Your task to perform on an android device: turn on improve location accuracy Image 0: 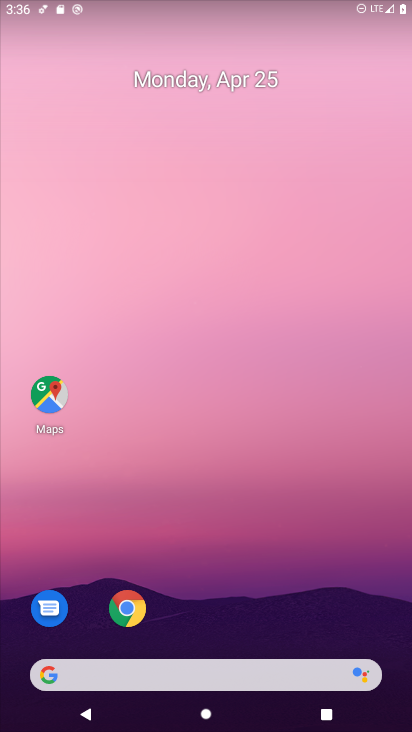
Step 0: drag from (256, 678) to (191, 257)
Your task to perform on an android device: turn on improve location accuracy Image 1: 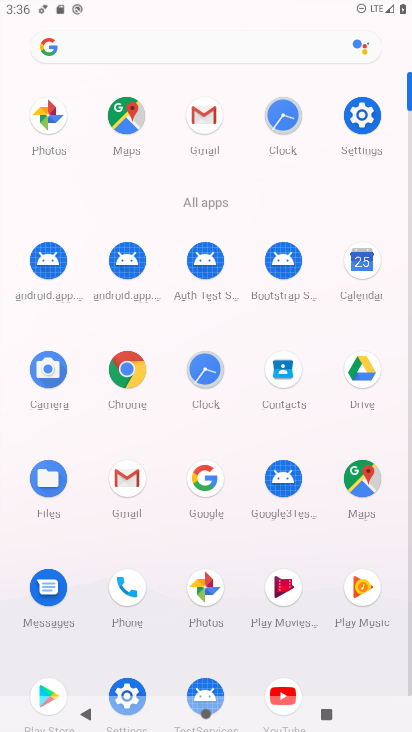
Step 1: click (366, 128)
Your task to perform on an android device: turn on improve location accuracy Image 2: 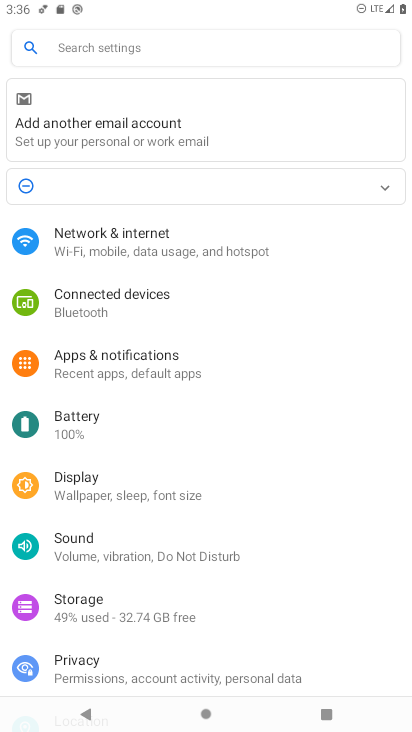
Step 2: click (167, 51)
Your task to perform on an android device: turn on improve location accuracy Image 3: 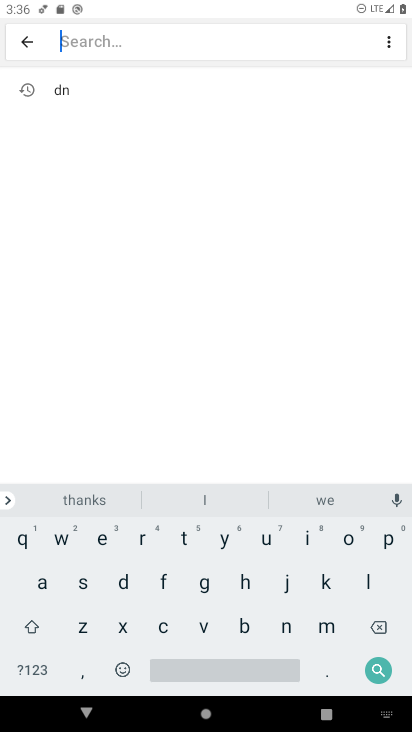
Step 3: click (370, 585)
Your task to perform on an android device: turn on improve location accuracy Image 4: 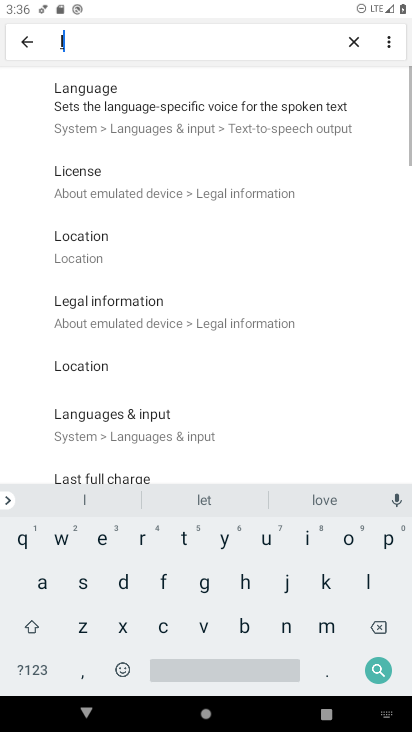
Step 4: click (351, 541)
Your task to perform on an android device: turn on improve location accuracy Image 5: 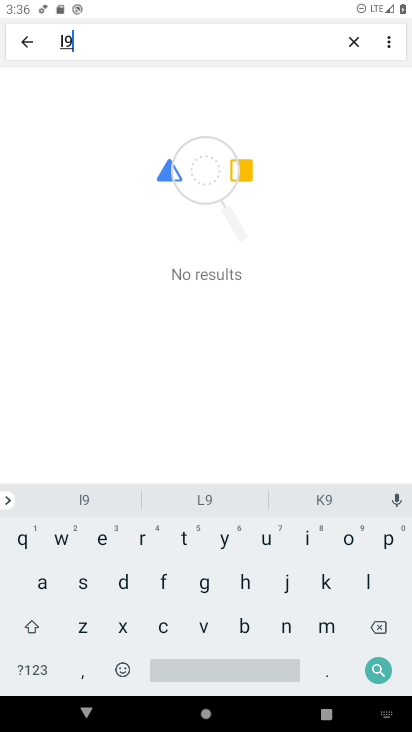
Step 5: click (388, 635)
Your task to perform on an android device: turn on improve location accuracy Image 6: 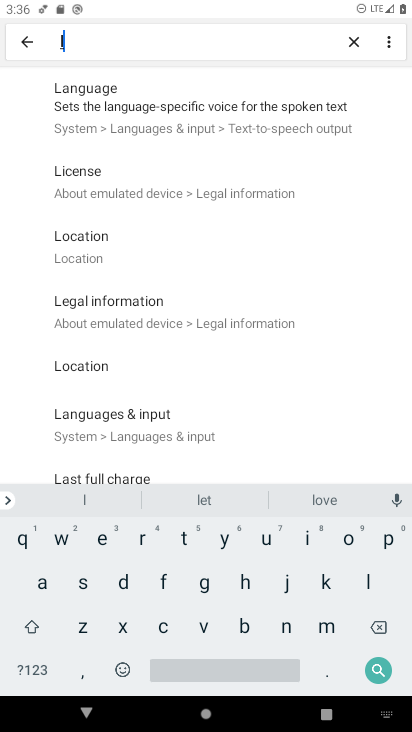
Step 6: click (349, 547)
Your task to perform on an android device: turn on improve location accuracy Image 7: 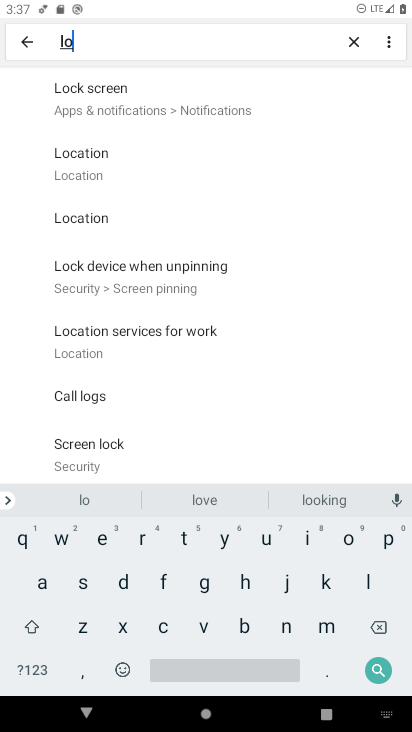
Step 7: click (113, 159)
Your task to perform on an android device: turn on improve location accuracy Image 8: 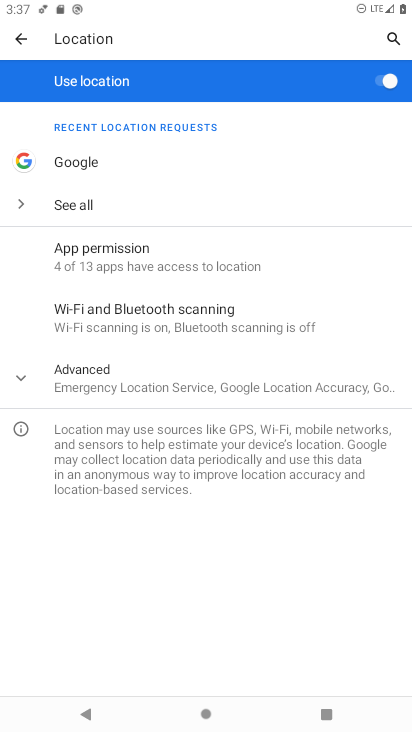
Step 8: drag from (69, 288) to (77, 405)
Your task to perform on an android device: turn on improve location accuracy Image 9: 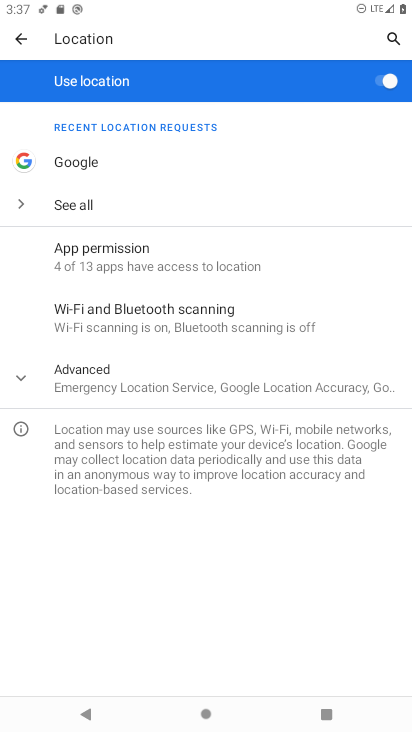
Step 9: click (64, 387)
Your task to perform on an android device: turn on improve location accuracy Image 10: 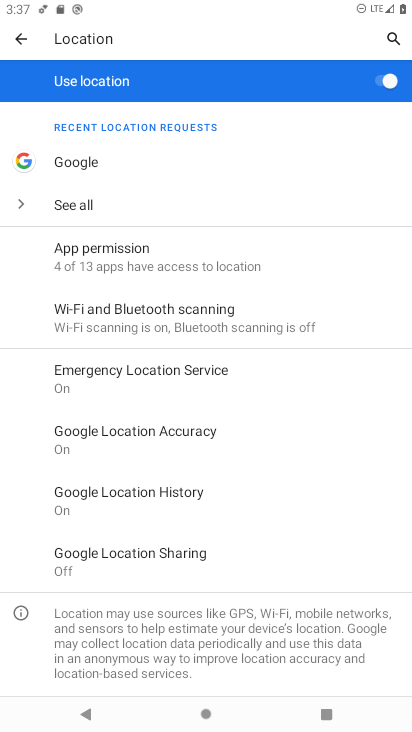
Step 10: click (160, 436)
Your task to perform on an android device: turn on improve location accuracy Image 11: 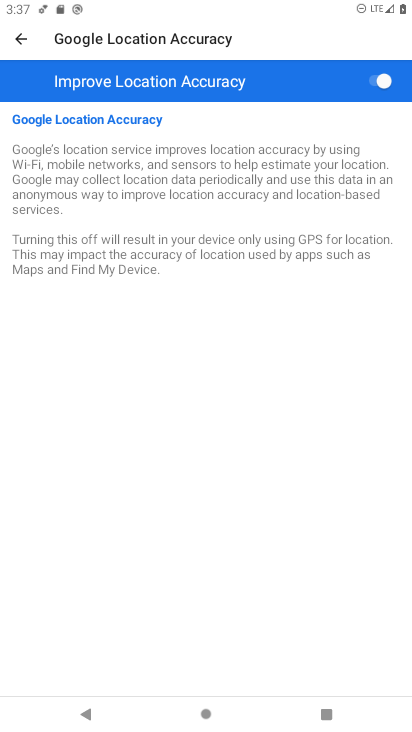
Step 11: click (364, 89)
Your task to perform on an android device: turn on improve location accuracy Image 12: 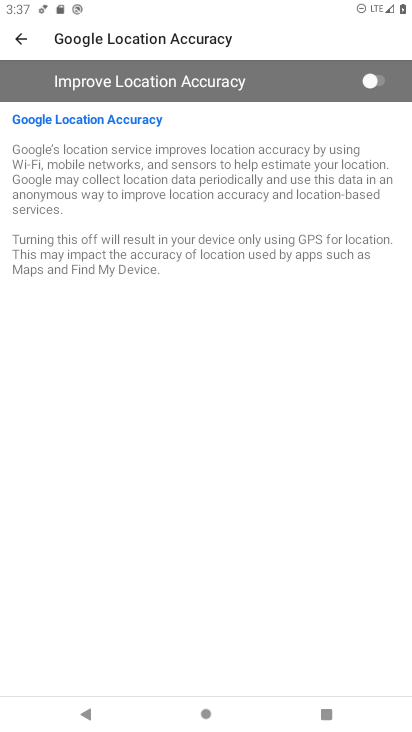
Step 12: click (358, 92)
Your task to perform on an android device: turn on improve location accuracy Image 13: 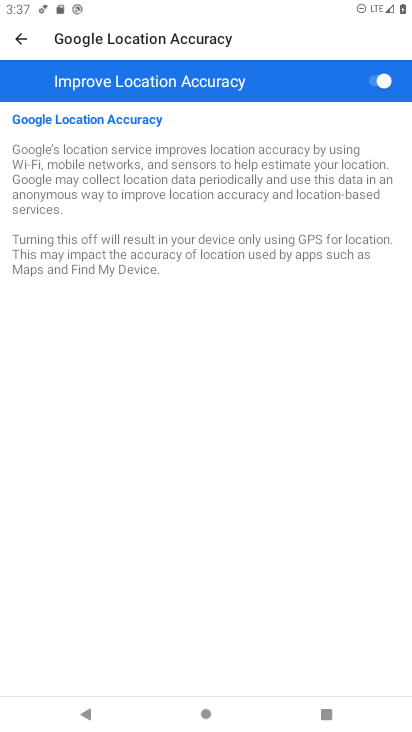
Step 13: task complete